Your task to perform on an android device: Set the phone to "Do not disturb". Image 0: 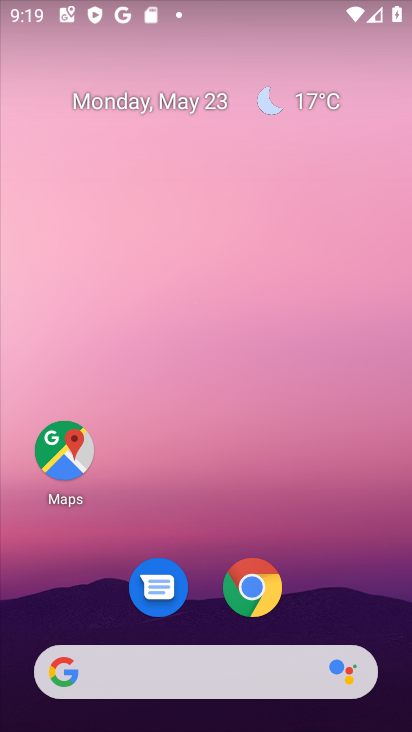
Step 0: drag from (155, 11) to (234, 177)
Your task to perform on an android device: Set the phone to "Do not disturb". Image 1: 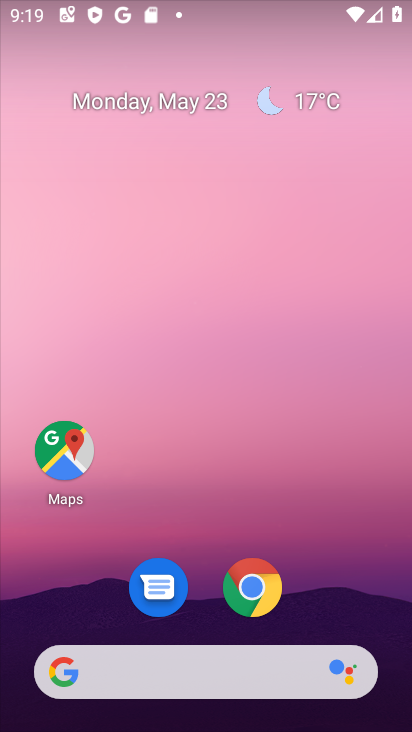
Step 1: drag from (142, 7) to (139, 523)
Your task to perform on an android device: Set the phone to "Do not disturb". Image 2: 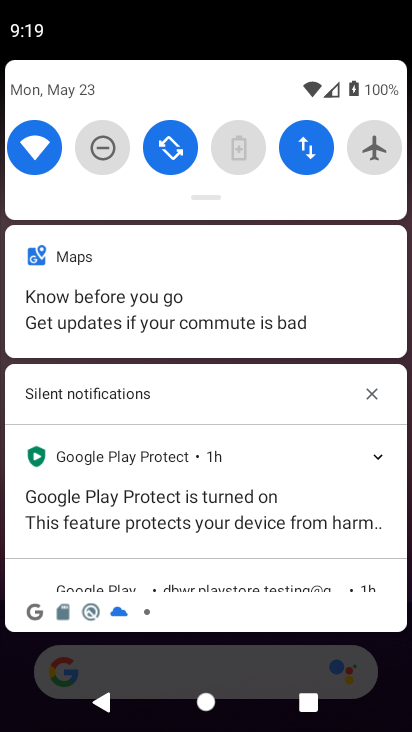
Step 2: click (91, 150)
Your task to perform on an android device: Set the phone to "Do not disturb". Image 3: 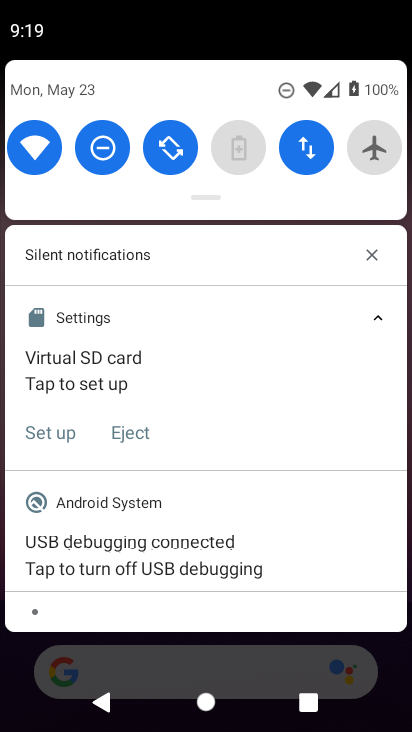
Step 3: task complete